Your task to perform on an android device: allow notifications from all sites in the chrome app Image 0: 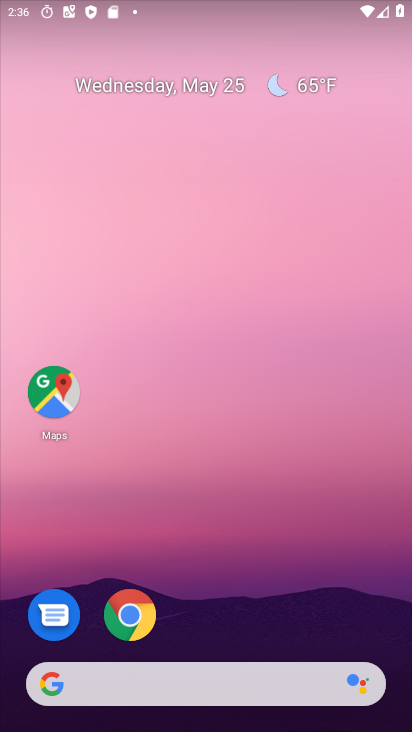
Step 0: click (129, 614)
Your task to perform on an android device: allow notifications from all sites in the chrome app Image 1: 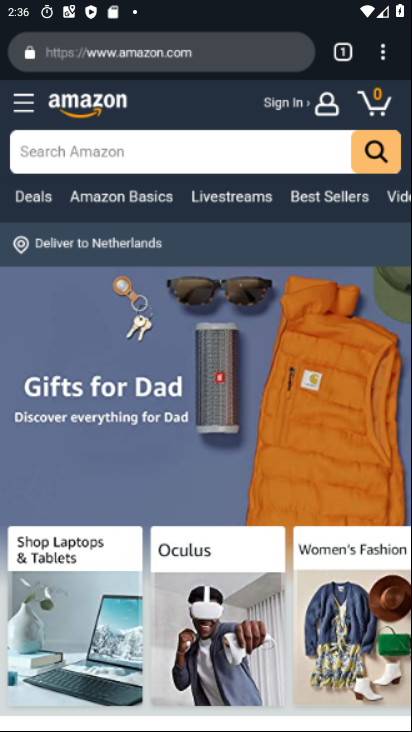
Step 1: click (382, 52)
Your task to perform on an android device: allow notifications from all sites in the chrome app Image 2: 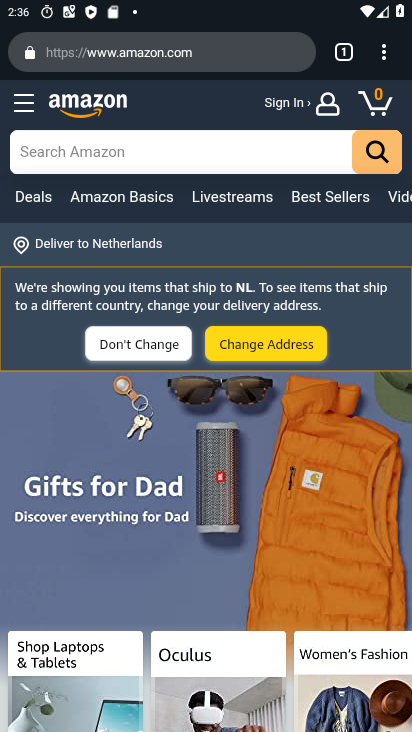
Step 2: click (389, 51)
Your task to perform on an android device: allow notifications from all sites in the chrome app Image 3: 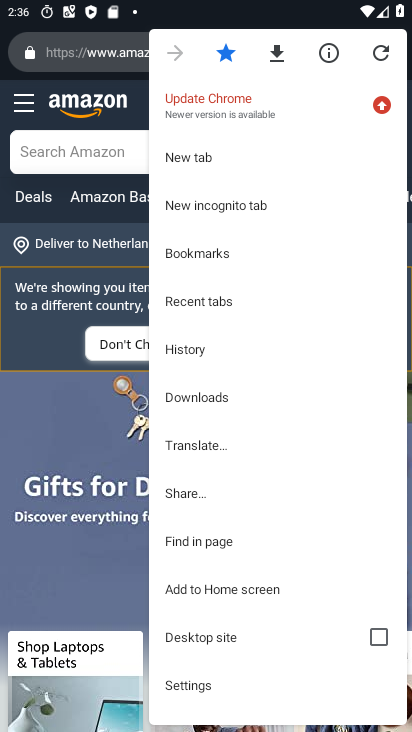
Step 3: click (196, 685)
Your task to perform on an android device: allow notifications from all sites in the chrome app Image 4: 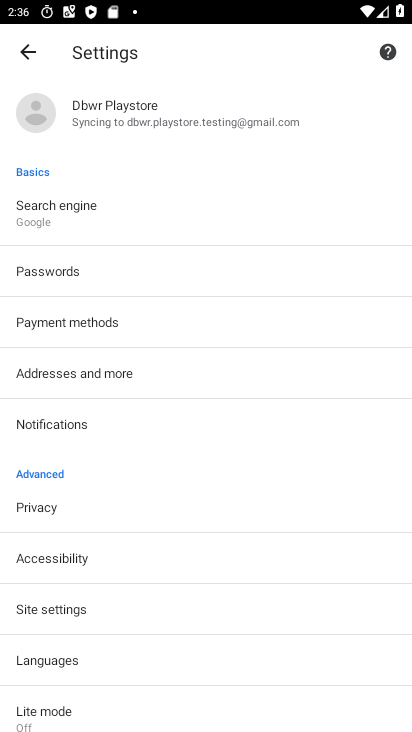
Step 4: click (45, 607)
Your task to perform on an android device: allow notifications from all sites in the chrome app Image 5: 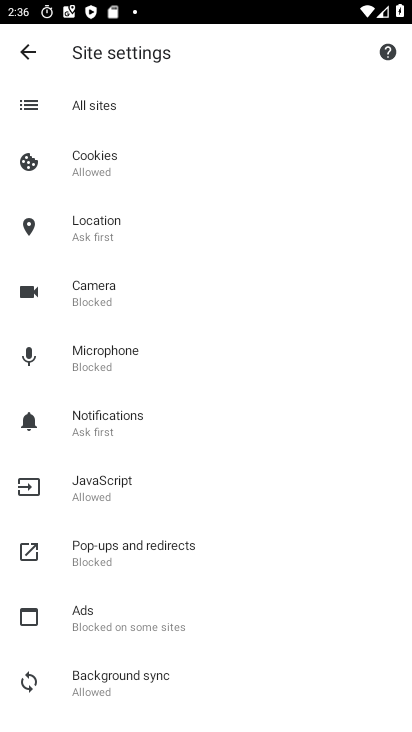
Step 5: click (90, 417)
Your task to perform on an android device: allow notifications from all sites in the chrome app Image 6: 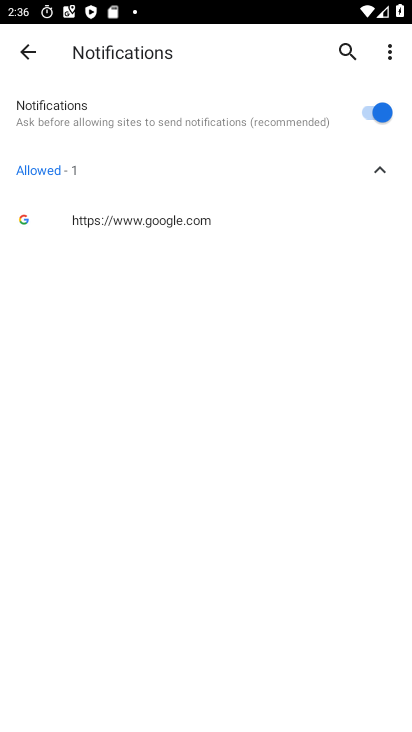
Step 6: task complete